Your task to perform on an android device: allow notifications from all sites in the chrome app Image 0: 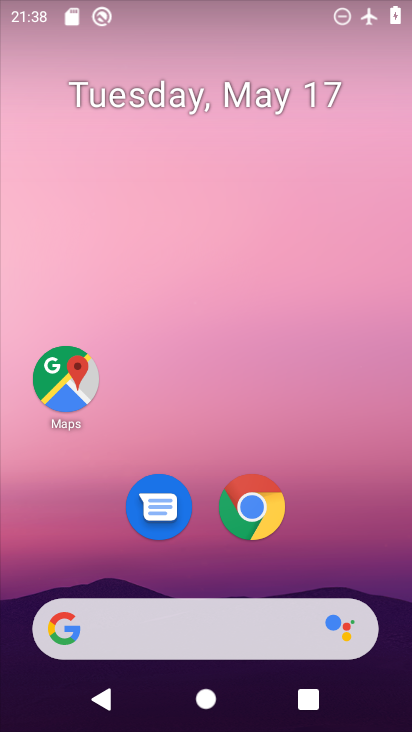
Step 0: click (257, 507)
Your task to perform on an android device: allow notifications from all sites in the chrome app Image 1: 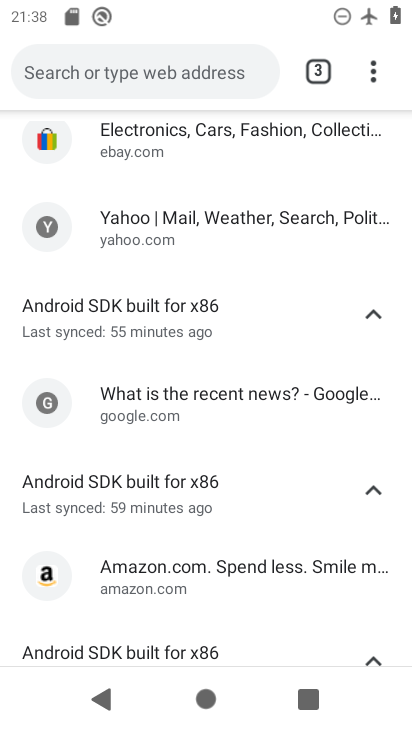
Step 1: click (377, 68)
Your task to perform on an android device: allow notifications from all sites in the chrome app Image 2: 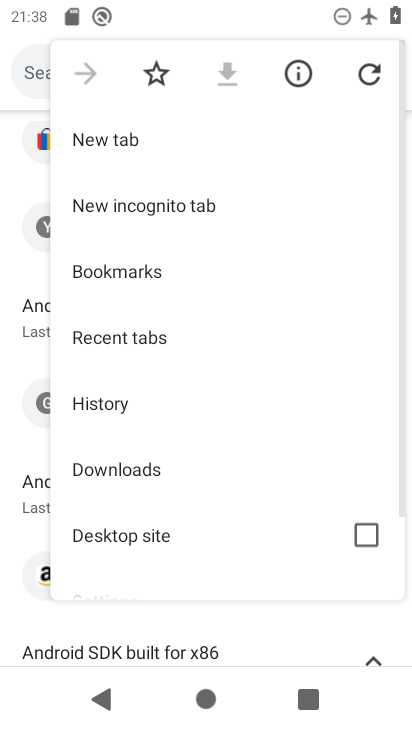
Step 2: drag from (195, 453) to (230, 78)
Your task to perform on an android device: allow notifications from all sites in the chrome app Image 3: 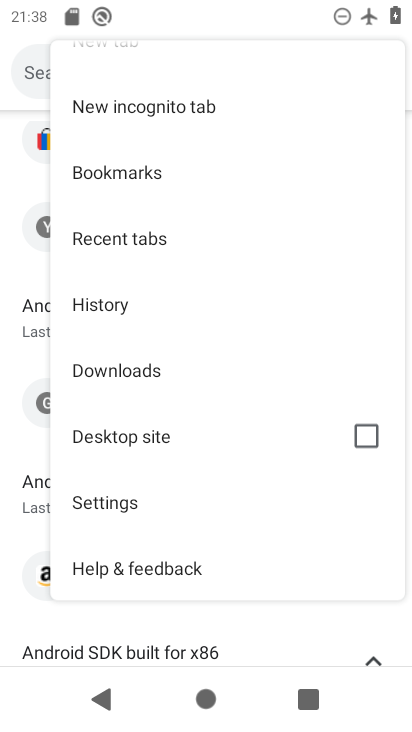
Step 3: click (95, 498)
Your task to perform on an android device: allow notifications from all sites in the chrome app Image 4: 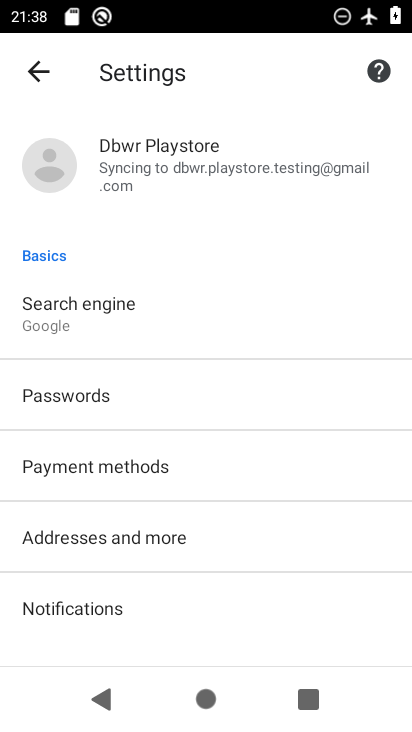
Step 4: drag from (249, 491) to (249, 198)
Your task to perform on an android device: allow notifications from all sites in the chrome app Image 5: 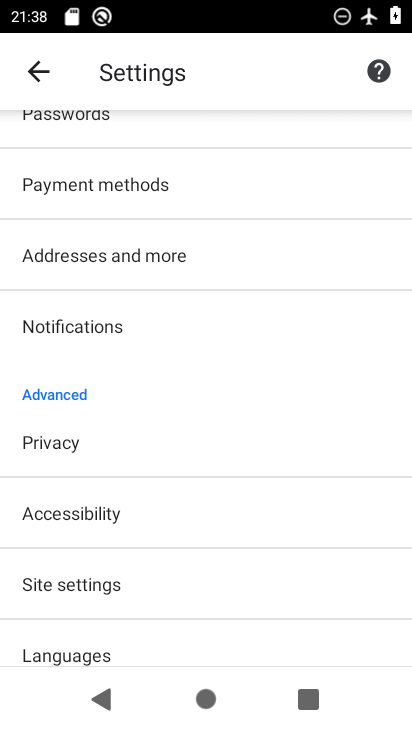
Step 5: drag from (214, 556) to (227, 364)
Your task to perform on an android device: allow notifications from all sites in the chrome app Image 6: 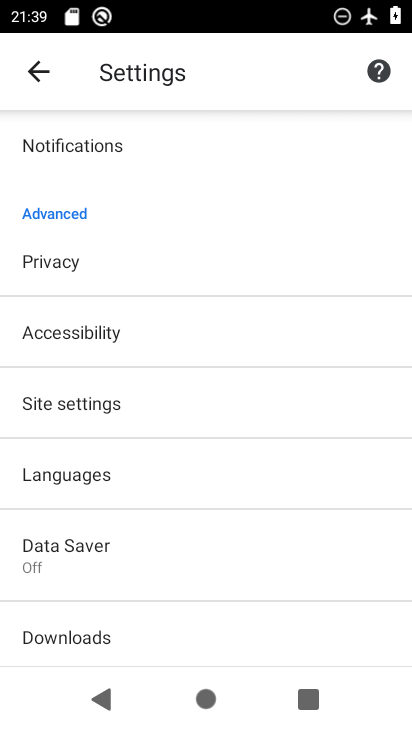
Step 6: click (95, 397)
Your task to perform on an android device: allow notifications from all sites in the chrome app Image 7: 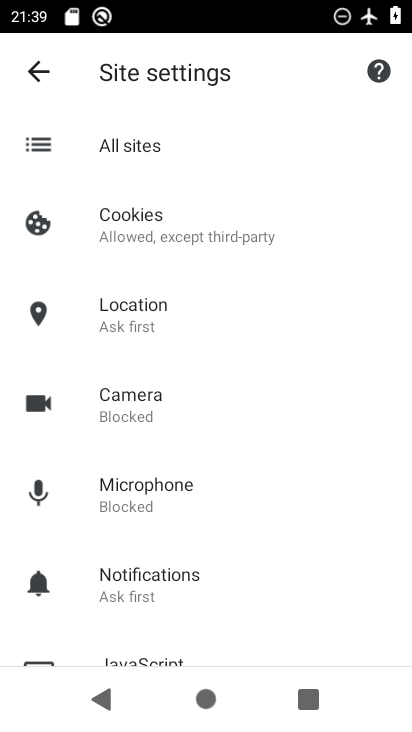
Step 7: drag from (244, 526) to (256, 157)
Your task to perform on an android device: allow notifications from all sites in the chrome app Image 8: 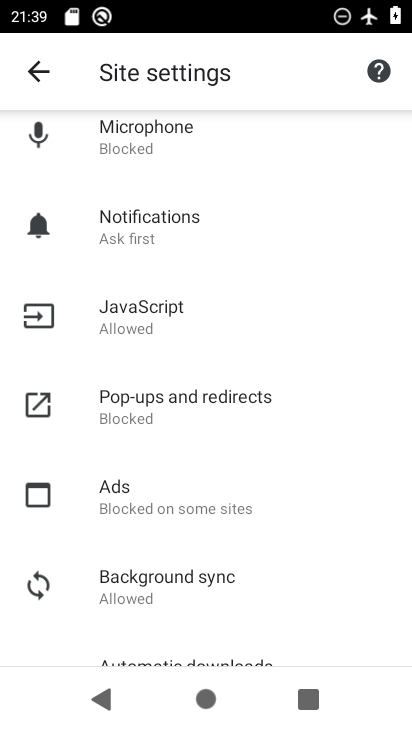
Step 8: click (135, 227)
Your task to perform on an android device: allow notifications from all sites in the chrome app Image 9: 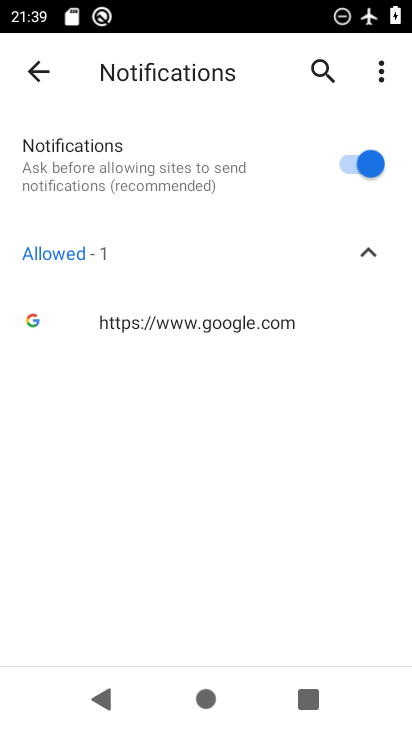
Step 9: press home button
Your task to perform on an android device: allow notifications from all sites in the chrome app Image 10: 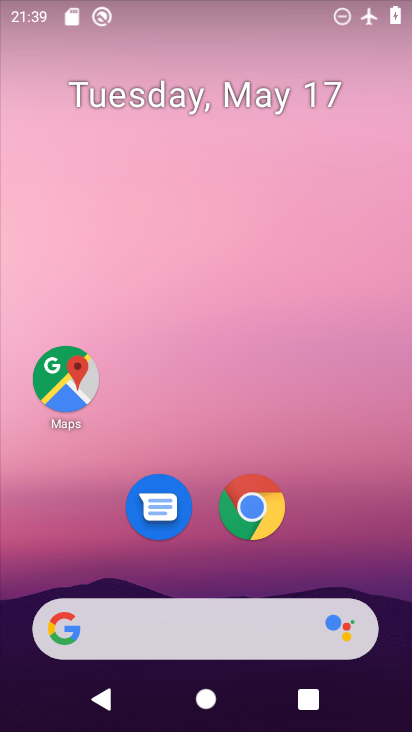
Step 10: click (259, 508)
Your task to perform on an android device: allow notifications from all sites in the chrome app Image 11: 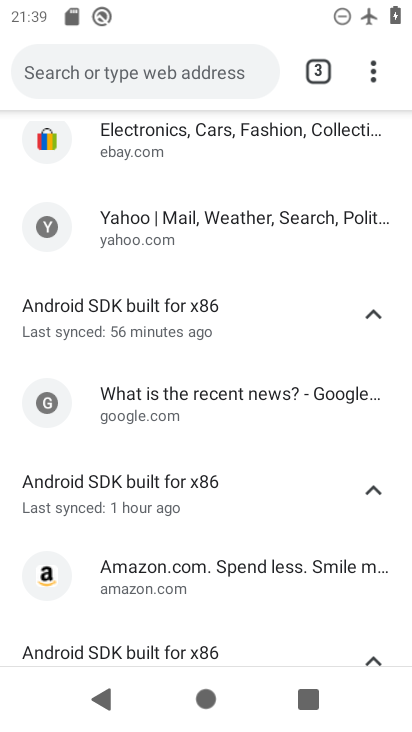
Step 11: click (374, 65)
Your task to perform on an android device: allow notifications from all sites in the chrome app Image 12: 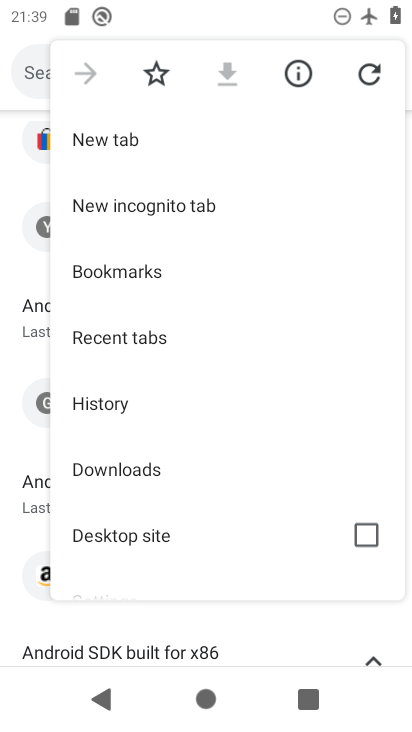
Step 12: drag from (149, 498) to (131, 89)
Your task to perform on an android device: allow notifications from all sites in the chrome app Image 13: 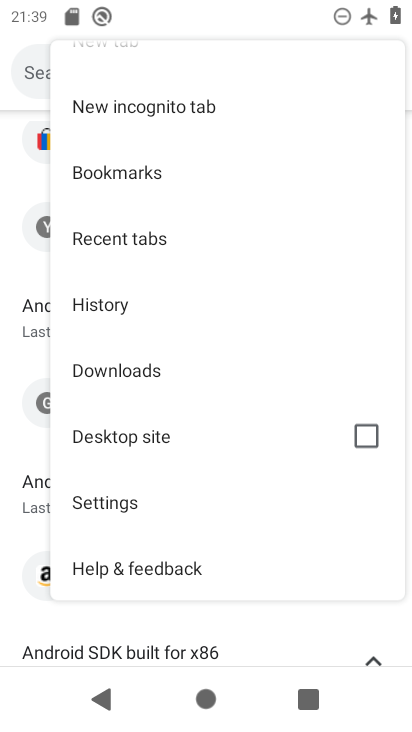
Step 13: click (111, 506)
Your task to perform on an android device: allow notifications from all sites in the chrome app Image 14: 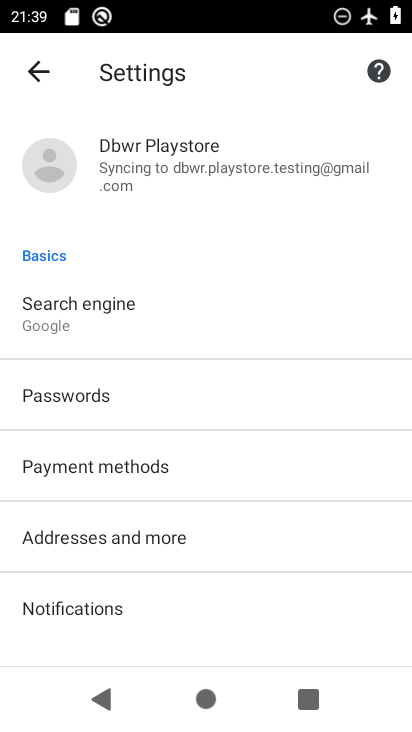
Step 14: drag from (155, 559) to (154, 68)
Your task to perform on an android device: allow notifications from all sites in the chrome app Image 15: 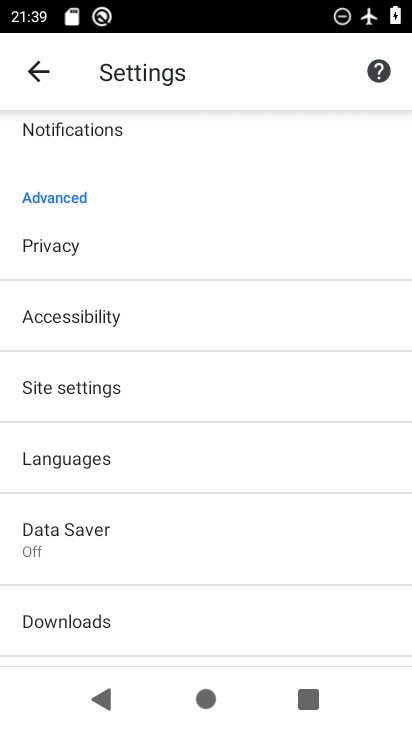
Step 15: click (88, 390)
Your task to perform on an android device: allow notifications from all sites in the chrome app Image 16: 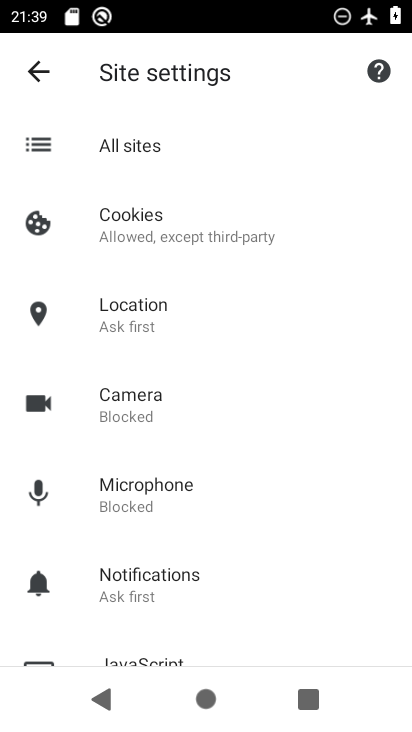
Step 16: click (143, 564)
Your task to perform on an android device: allow notifications from all sites in the chrome app Image 17: 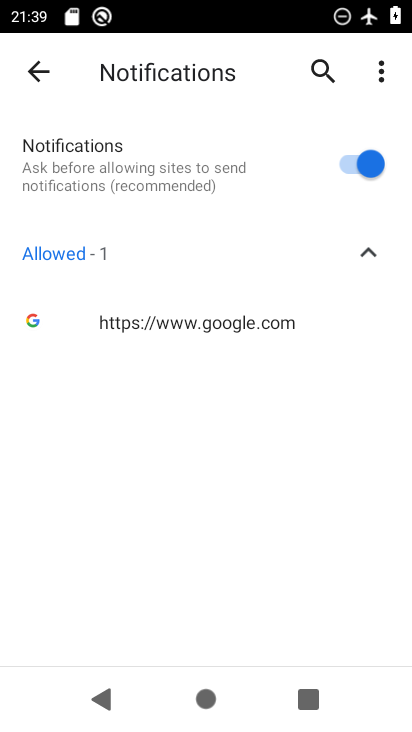
Step 17: task complete